Your task to perform on an android device: Do I have any events today? Image 0: 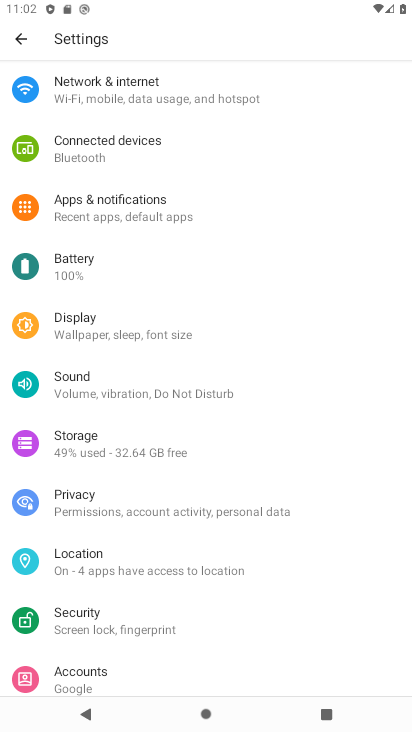
Step 0: press home button
Your task to perform on an android device: Do I have any events today? Image 1: 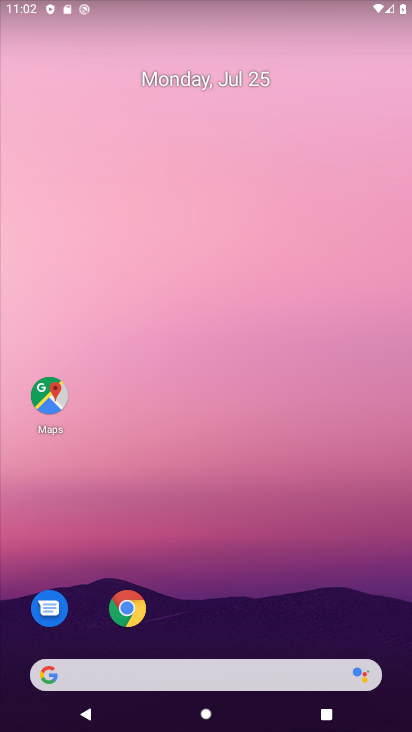
Step 1: drag from (198, 678) to (126, 10)
Your task to perform on an android device: Do I have any events today? Image 2: 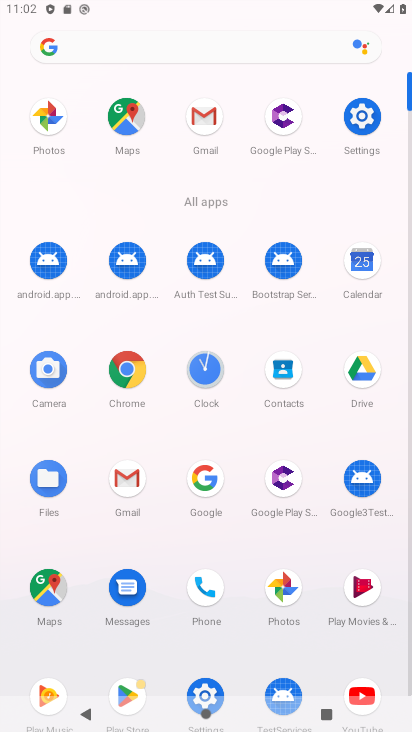
Step 2: click (361, 283)
Your task to perform on an android device: Do I have any events today? Image 3: 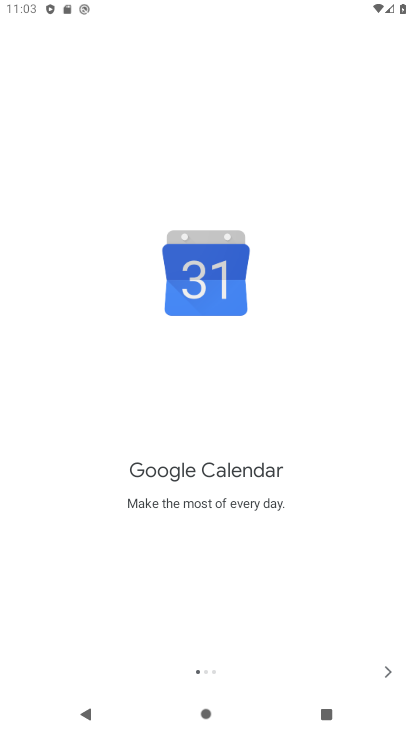
Step 3: click (383, 669)
Your task to perform on an android device: Do I have any events today? Image 4: 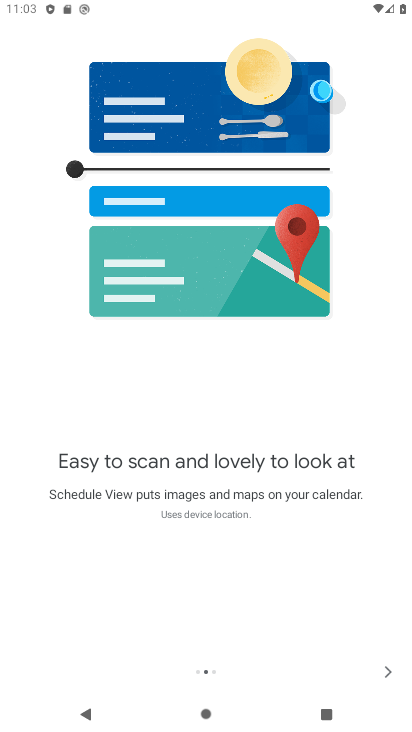
Step 4: click (396, 667)
Your task to perform on an android device: Do I have any events today? Image 5: 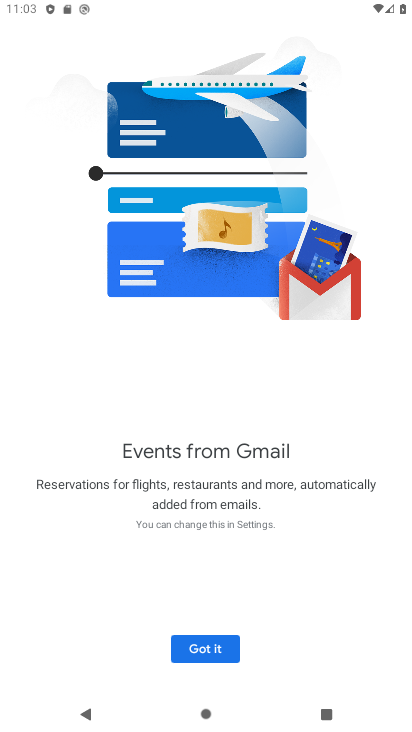
Step 5: click (192, 644)
Your task to perform on an android device: Do I have any events today? Image 6: 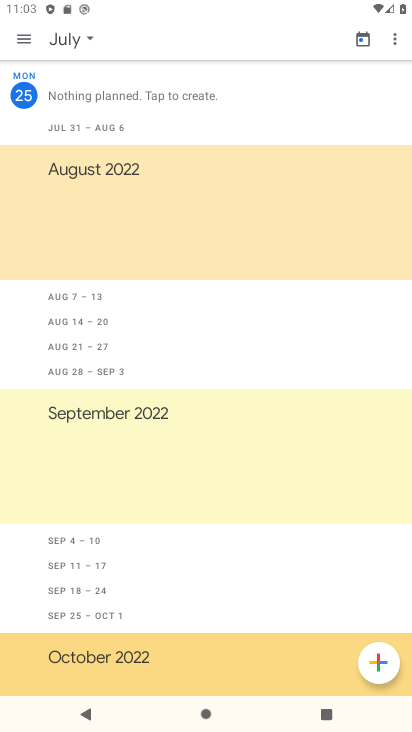
Step 6: click (20, 29)
Your task to perform on an android device: Do I have any events today? Image 7: 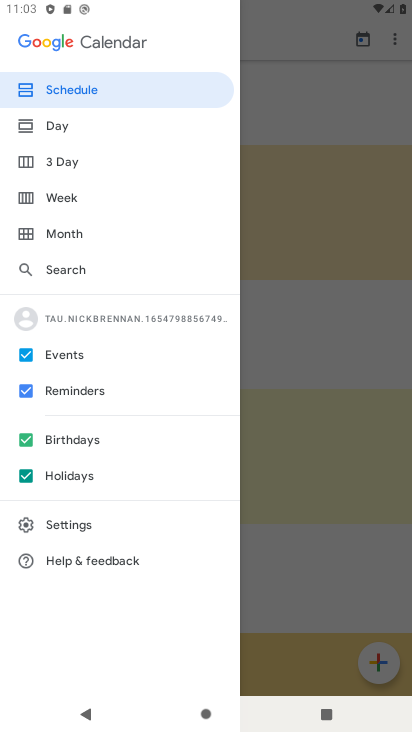
Step 7: click (122, 88)
Your task to perform on an android device: Do I have any events today? Image 8: 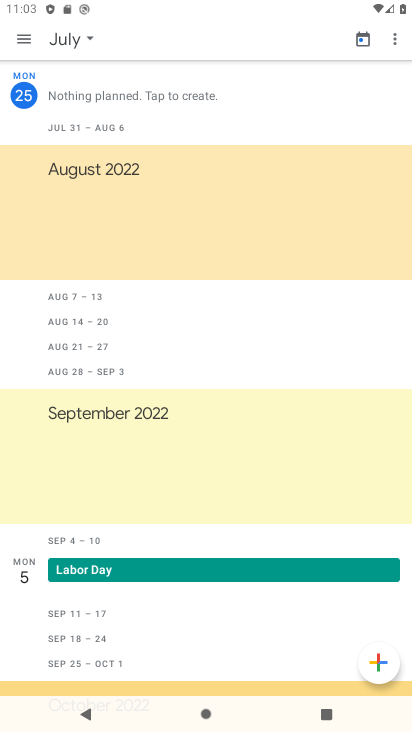
Step 8: task complete